Your task to perform on an android device: Search for Italian restaurants on Maps Image 0: 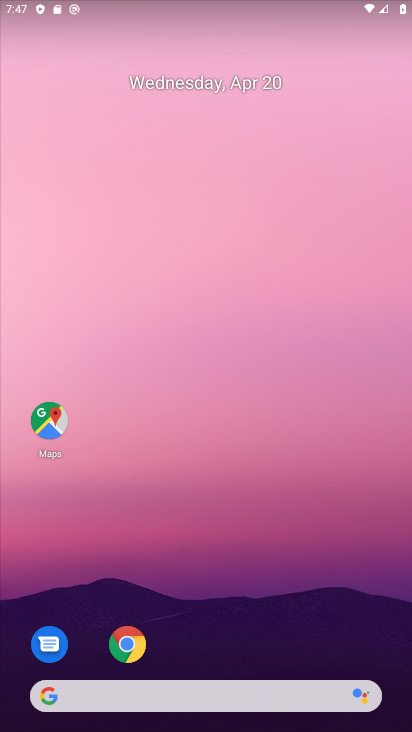
Step 0: drag from (332, 620) to (260, 87)
Your task to perform on an android device: Search for Italian restaurants on Maps Image 1: 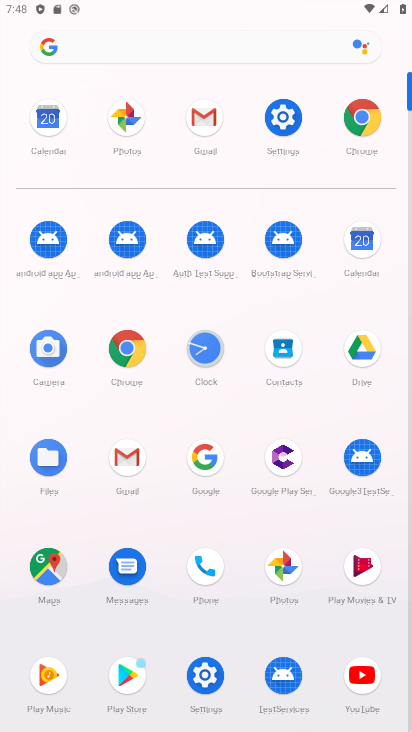
Step 1: click (57, 556)
Your task to perform on an android device: Search for Italian restaurants on Maps Image 2: 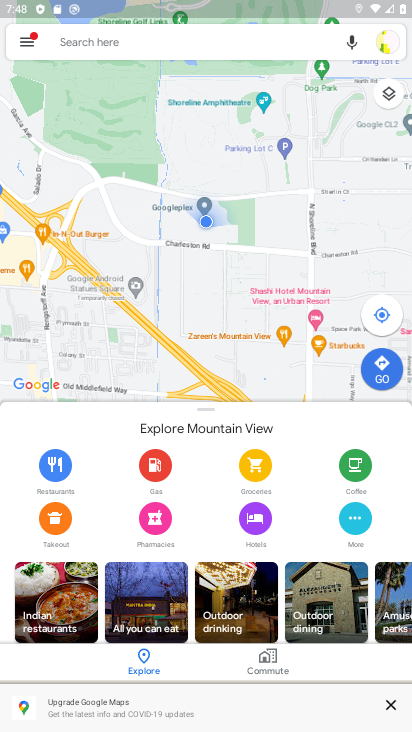
Step 2: click (158, 36)
Your task to perform on an android device: Search for Italian restaurants on Maps Image 3: 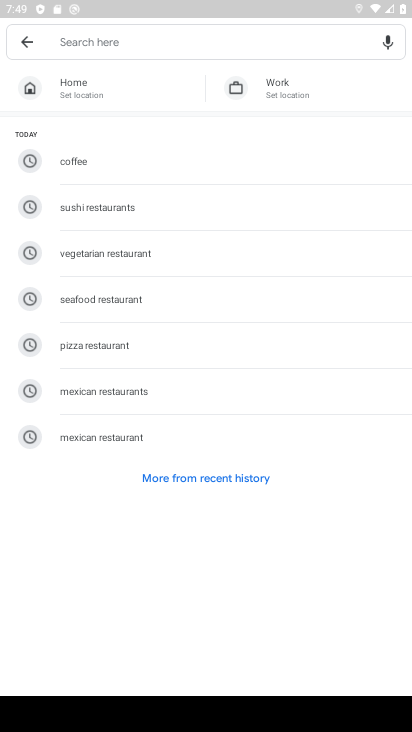
Step 3: type "Italin restaurants"
Your task to perform on an android device: Search for Italian restaurants on Maps Image 4: 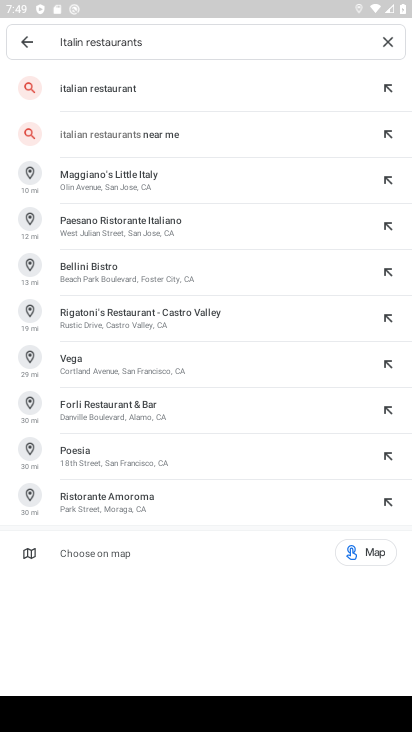
Step 4: click (129, 101)
Your task to perform on an android device: Search for Italian restaurants on Maps Image 5: 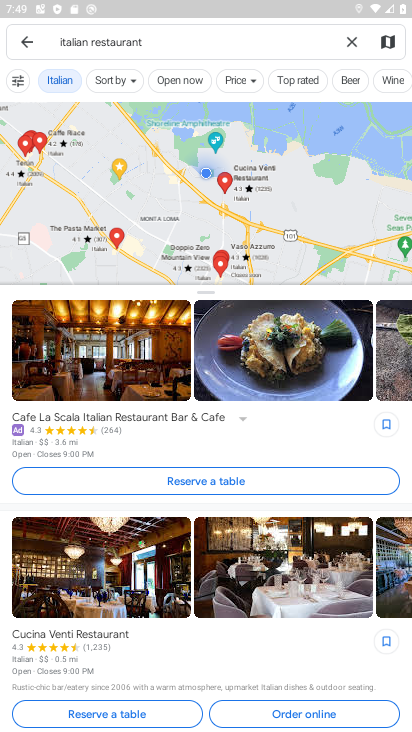
Step 5: task complete